Your task to perform on an android device: Clear all items from cart on walmart.com. Search for "asus zenbook" on walmart.com, select the first entry, add it to the cart, then select checkout. Image 0: 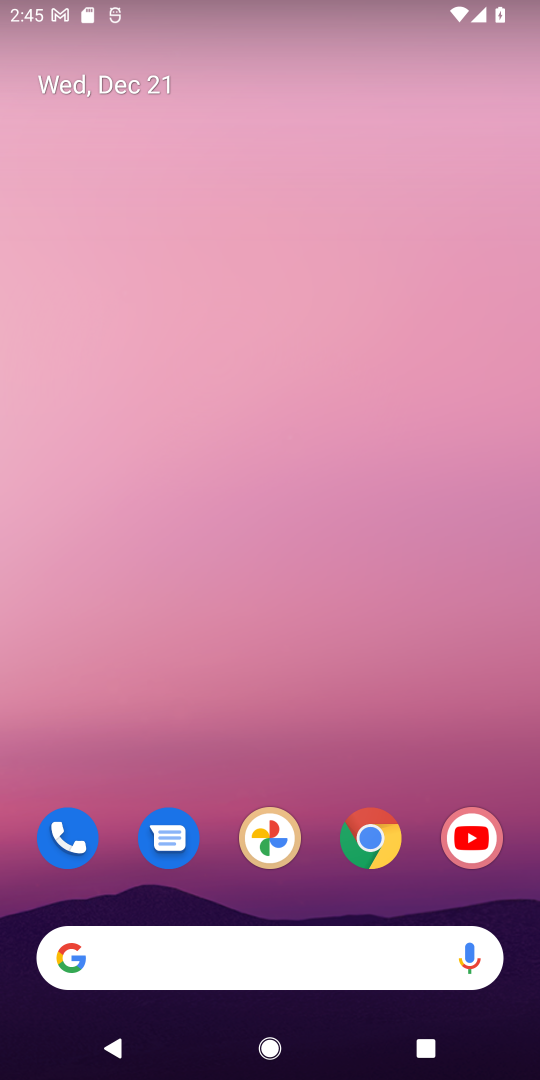
Step 0: click (352, 836)
Your task to perform on an android device: Clear all items from cart on walmart.com. Search for "asus zenbook" on walmart.com, select the first entry, add it to the cart, then select checkout. Image 1: 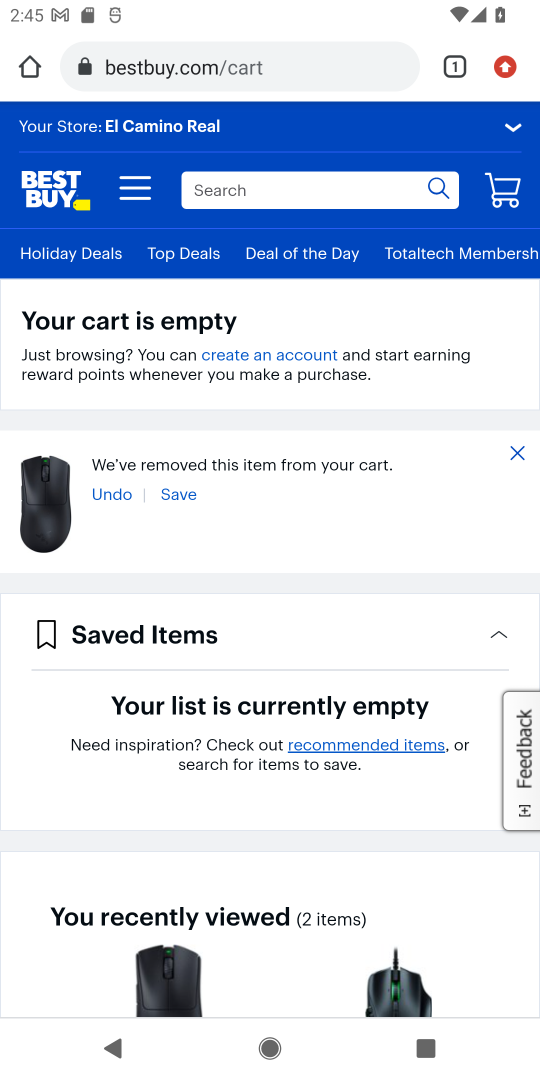
Step 1: click (318, 78)
Your task to perform on an android device: Clear all items from cart on walmart.com. Search for "asus zenbook" on walmart.com, select the first entry, add it to the cart, then select checkout. Image 2: 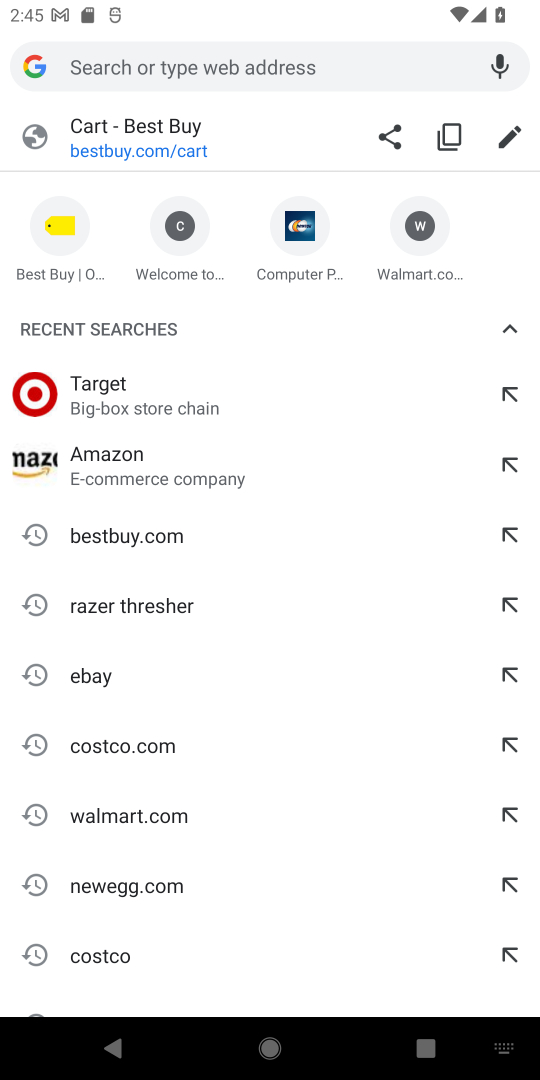
Step 2: type "walmart"
Your task to perform on an android device: Clear all items from cart on walmart.com. Search for "asus zenbook" on walmart.com, select the first entry, add it to the cart, then select checkout. Image 3: 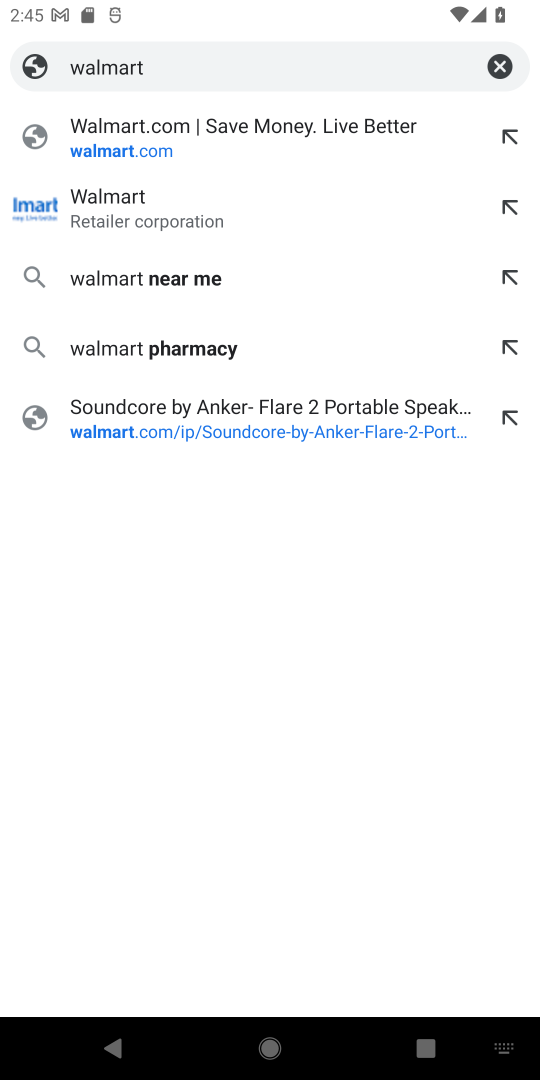
Step 3: click (268, 163)
Your task to perform on an android device: Clear all items from cart on walmart.com. Search for "asus zenbook" on walmart.com, select the first entry, add it to the cart, then select checkout. Image 4: 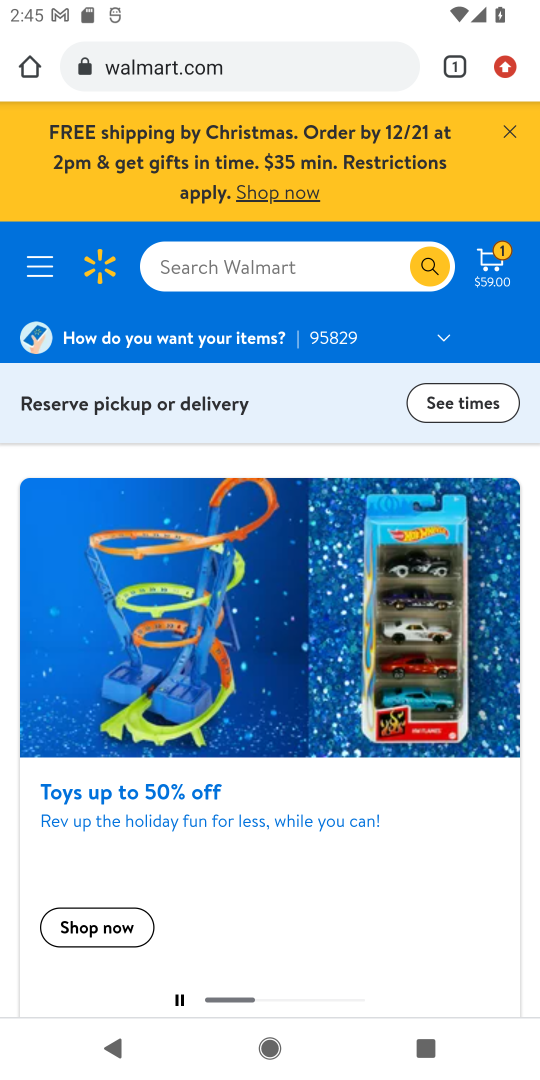
Step 4: click (282, 276)
Your task to perform on an android device: Clear all items from cart on walmart.com. Search for "asus zenbook" on walmart.com, select the first entry, add it to the cart, then select checkout. Image 5: 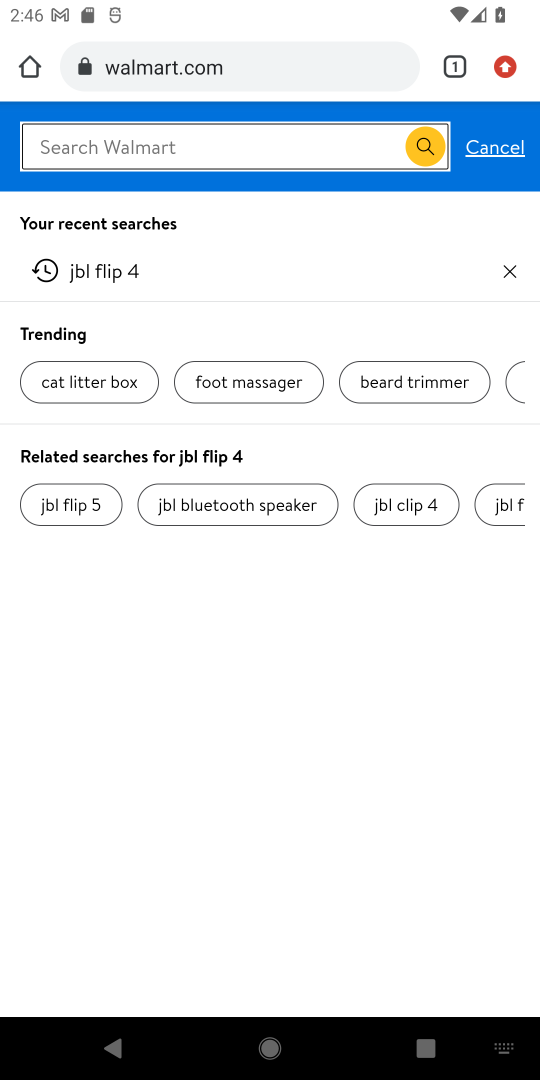
Step 5: type "asus zenbook"
Your task to perform on an android device: Clear all items from cart on walmart.com. Search for "asus zenbook" on walmart.com, select the first entry, add it to the cart, then select checkout. Image 6: 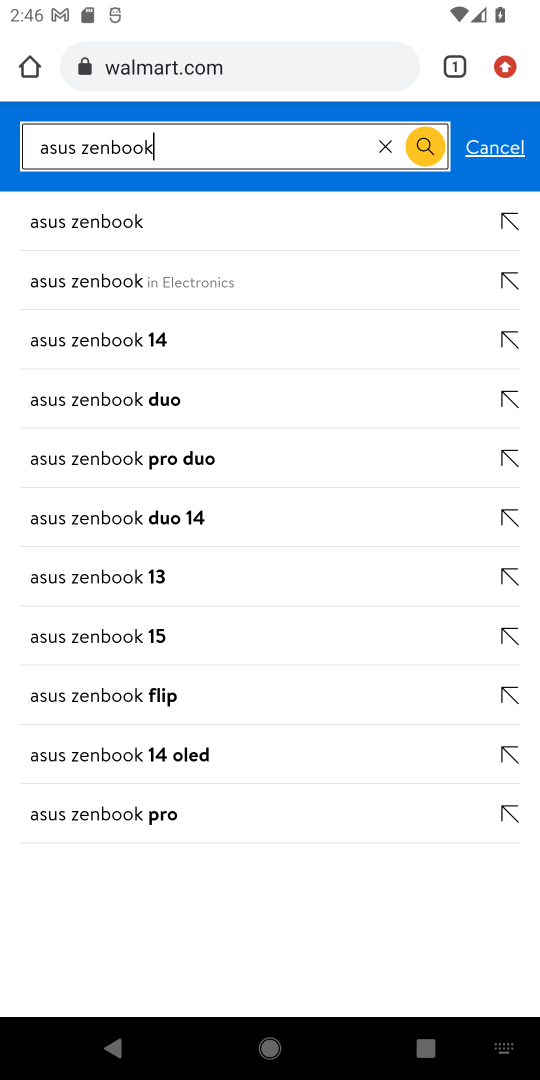
Step 6: click (434, 153)
Your task to perform on an android device: Clear all items from cart on walmart.com. Search for "asus zenbook" on walmart.com, select the first entry, add it to the cart, then select checkout. Image 7: 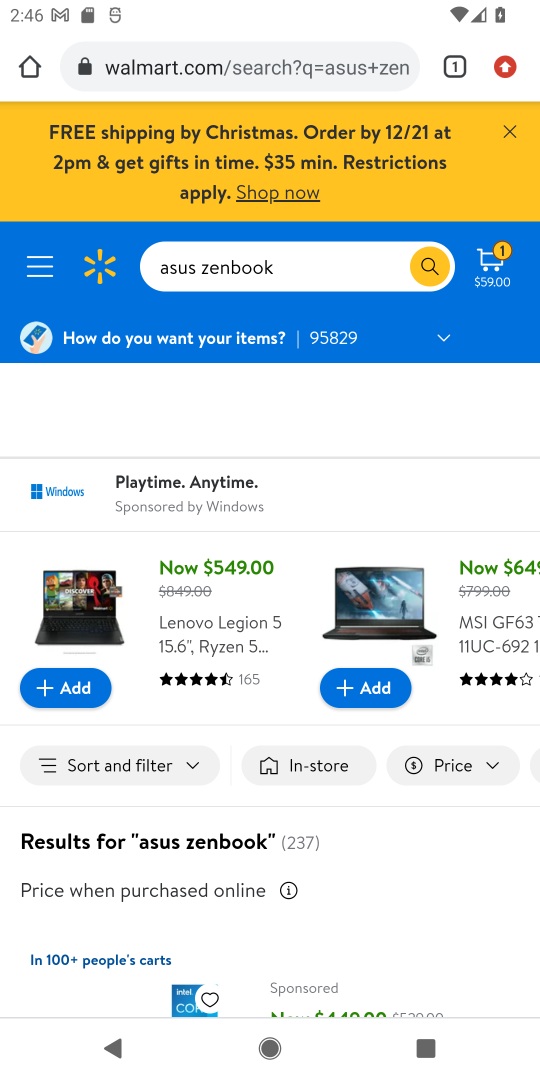
Step 7: drag from (332, 855) to (351, 405)
Your task to perform on an android device: Clear all items from cart on walmart.com. Search for "asus zenbook" on walmart.com, select the first entry, add it to the cart, then select checkout. Image 8: 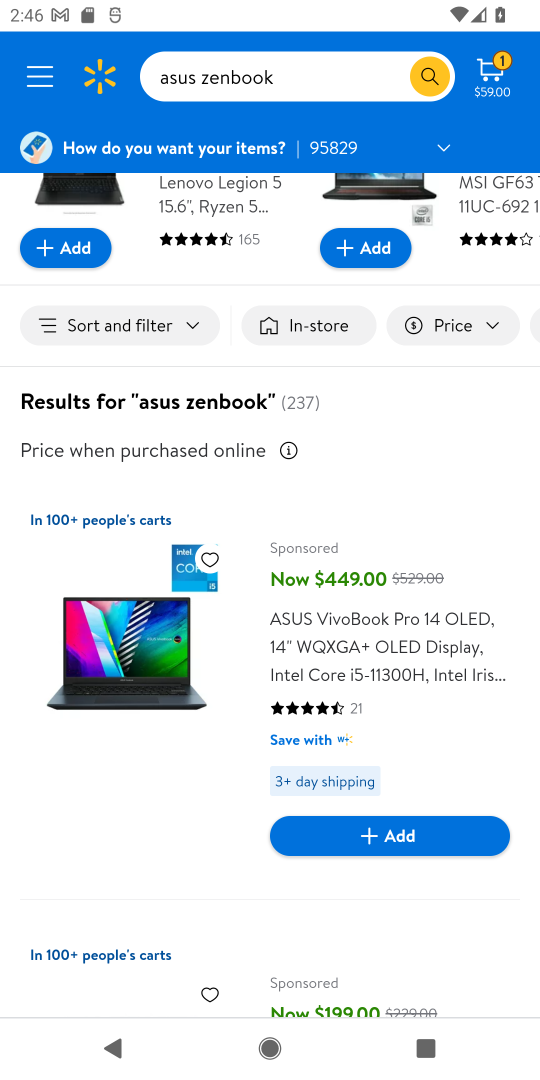
Step 8: click (397, 853)
Your task to perform on an android device: Clear all items from cart on walmart.com. Search for "asus zenbook" on walmart.com, select the first entry, add it to the cart, then select checkout. Image 9: 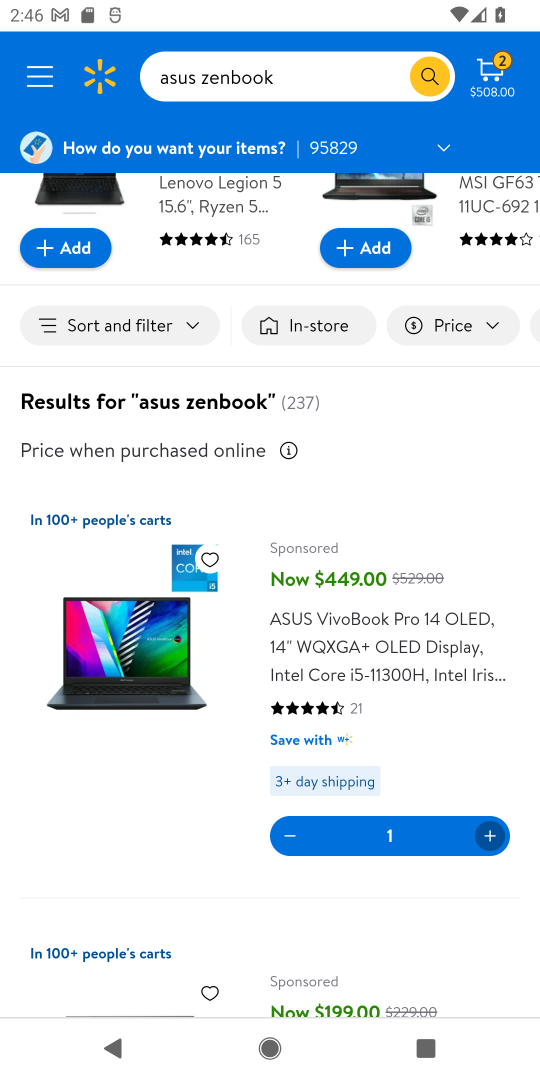
Step 9: task complete